Your task to perform on an android device: Find coffee shops on Maps Image 0: 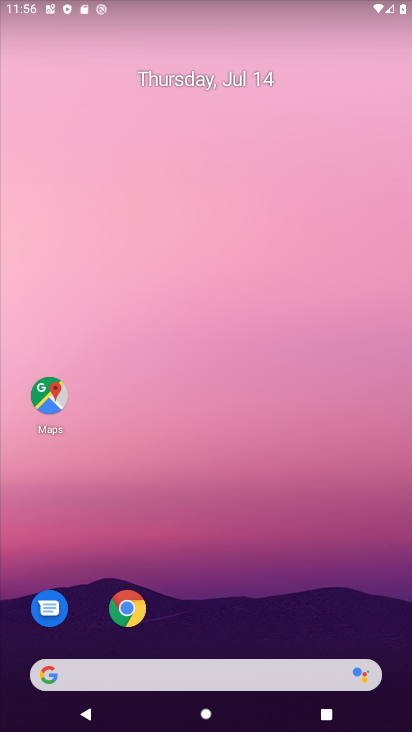
Step 0: click (43, 393)
Your task to perform on an android device: Find coffee shops on Maps Image 1: 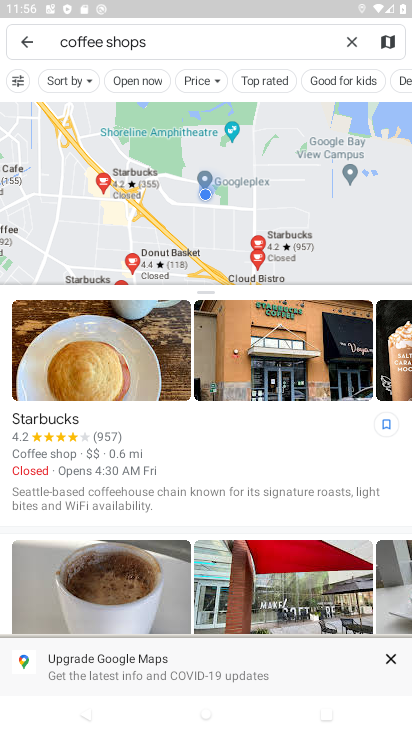
Step 1: task complete